Your task to perform on an android device: read, delete, or share a saved page in the chrome app Image 0: 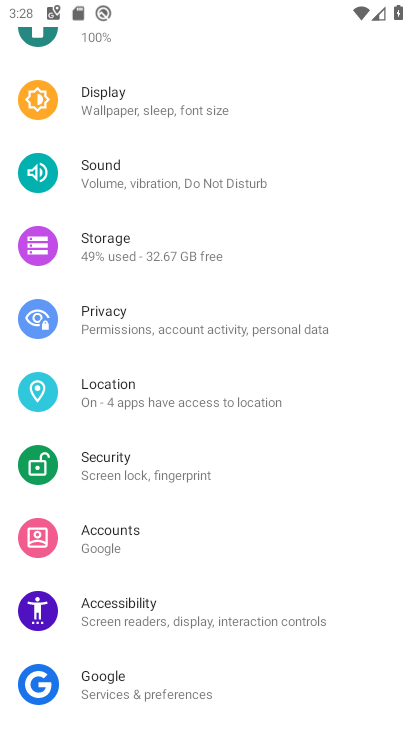
Step 0: press home button
Your task to perform on an android device: read, delete, or share a saved page in the chrome app Image 1: 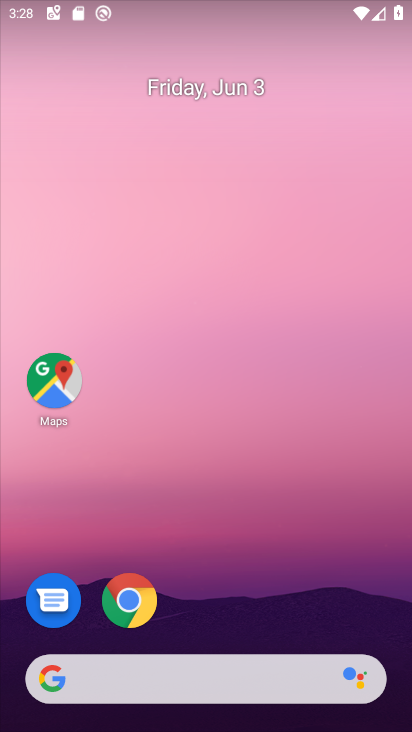
Step 1: click (132, 602)
Your task to perform on an android device: read, delete, or share a saved page in the chrome app Image 2: 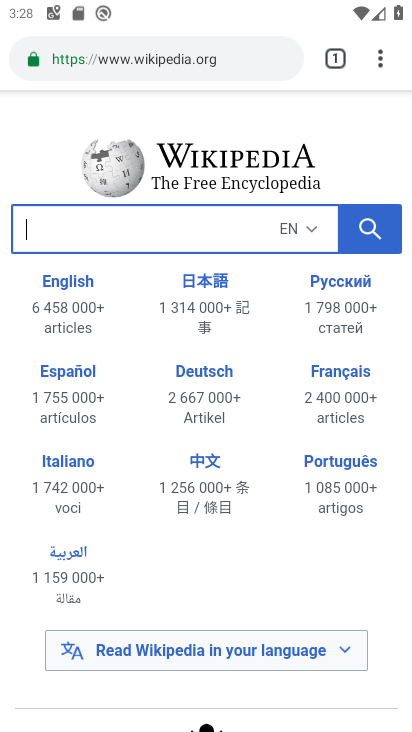
Step 2: task complete